Your task to perform on an android device: uninstall "Google Pay: Save, Pay, Manage" Image 0: 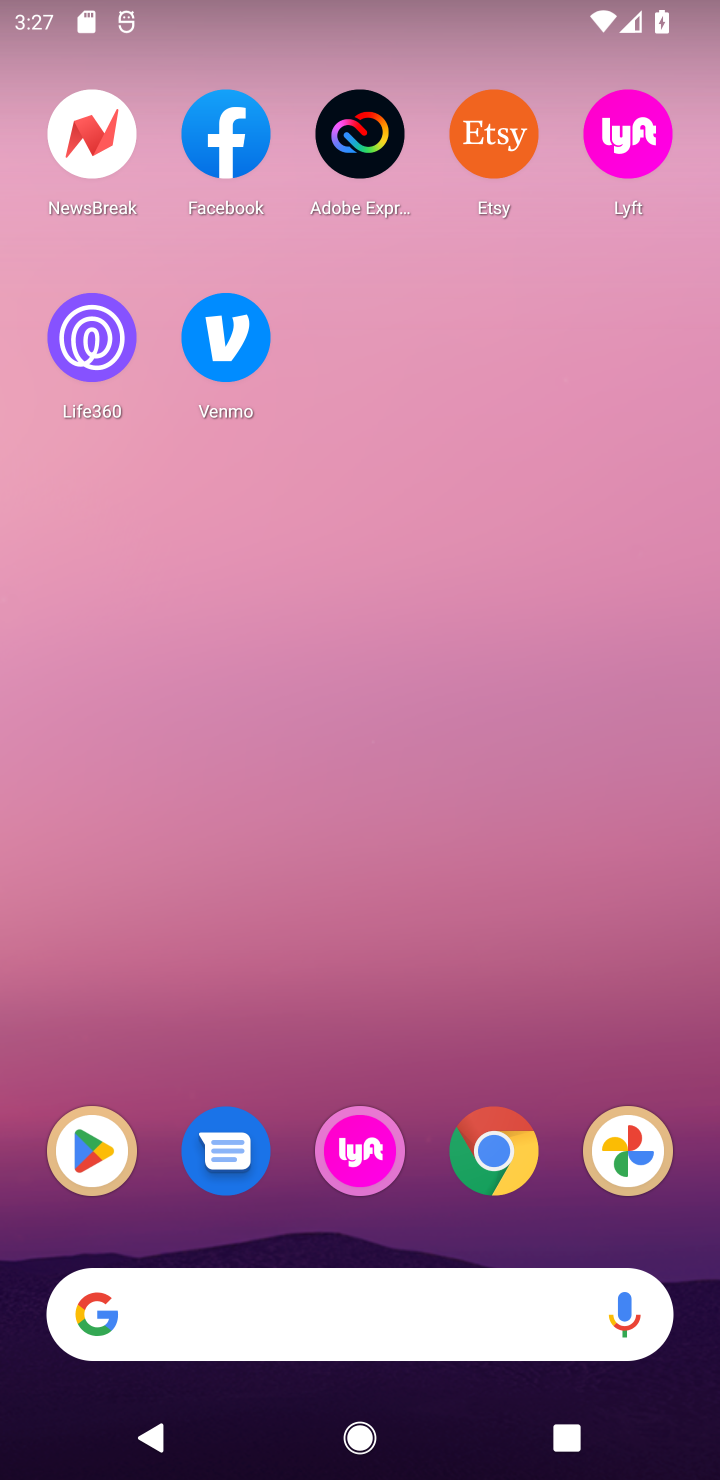
Step 0: drag from (405, 1290) to (446, 67)
Your task to perform on an android device: uninstall "Google Pay: Save, Pay, Manage" Image 1: 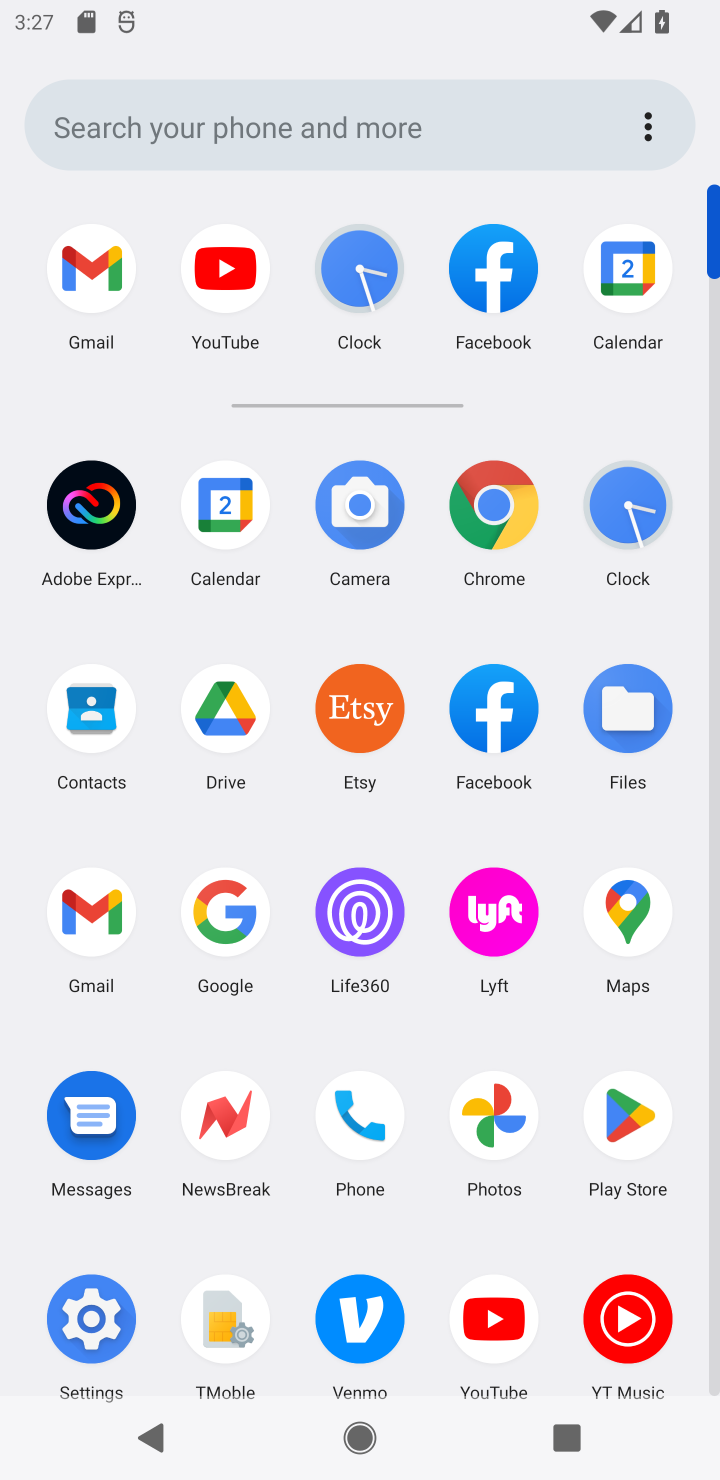
Step 1: click (639, 1113)
Your task to perform on an android device: uninstall "Google Pay: Save, Pay, Manage" Image 2: 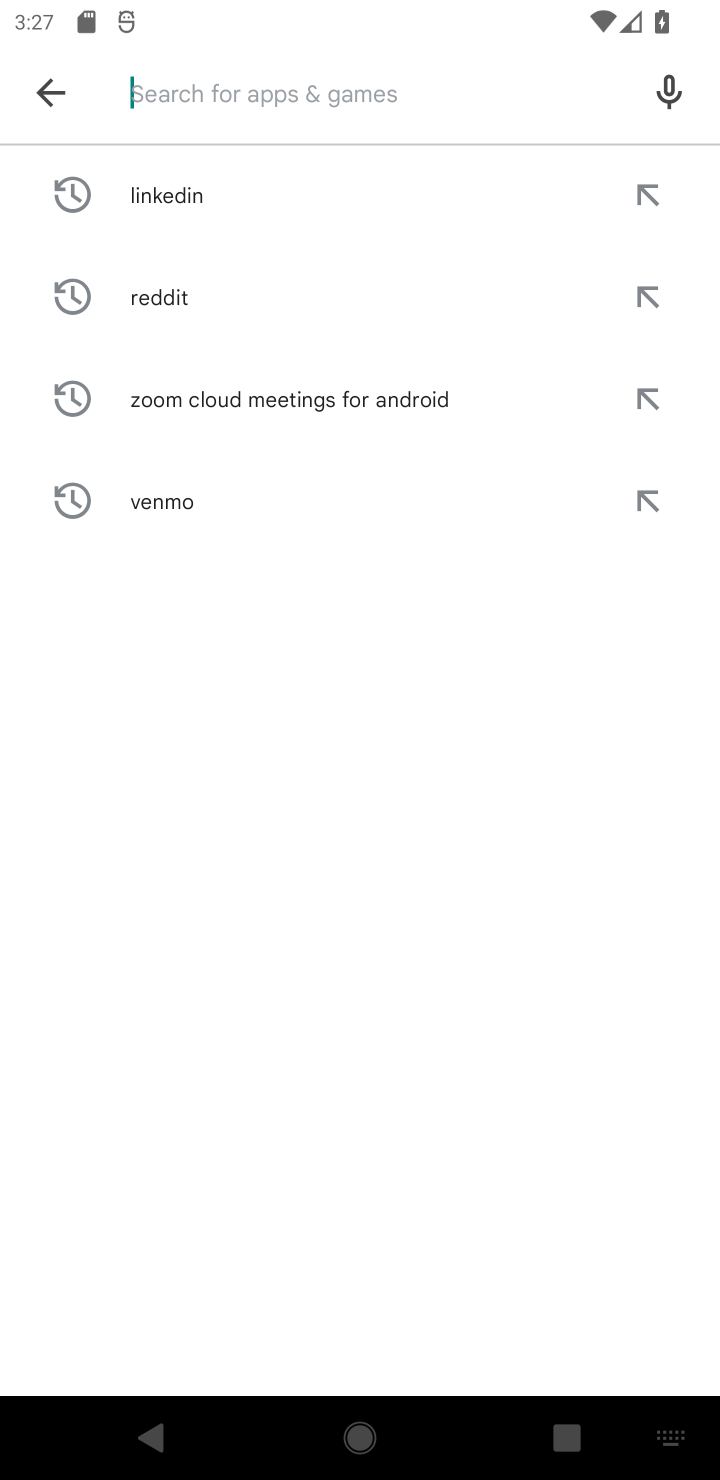
Step 2: type "Google Pay: Save, Pay, Manage"
Your task to perform on an android device: uninstall "Google Pay: Save, Pay, Manage" Image 3: 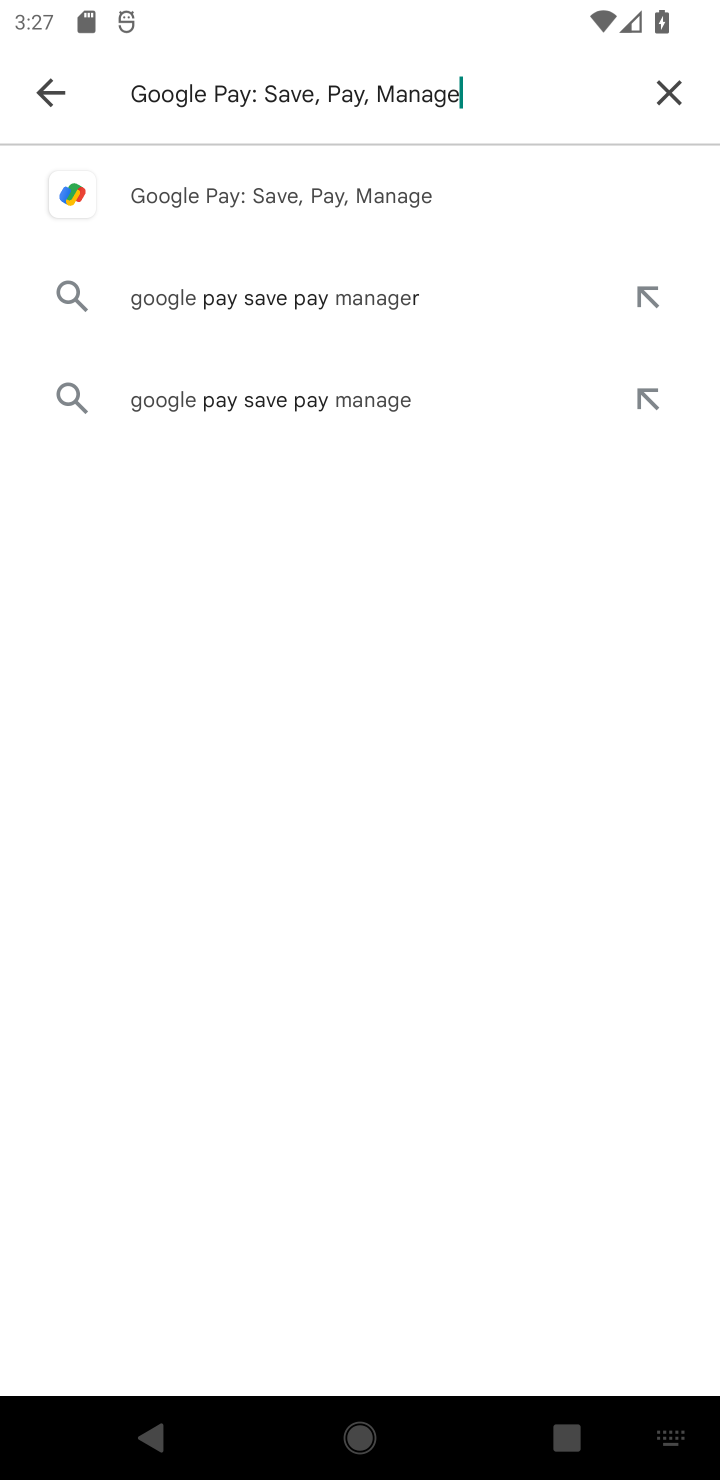
Step 3: click (356, 195)
Your task to perform on an android device: uninstall "Google Pay: Save, Pay, Manage" Image 4: 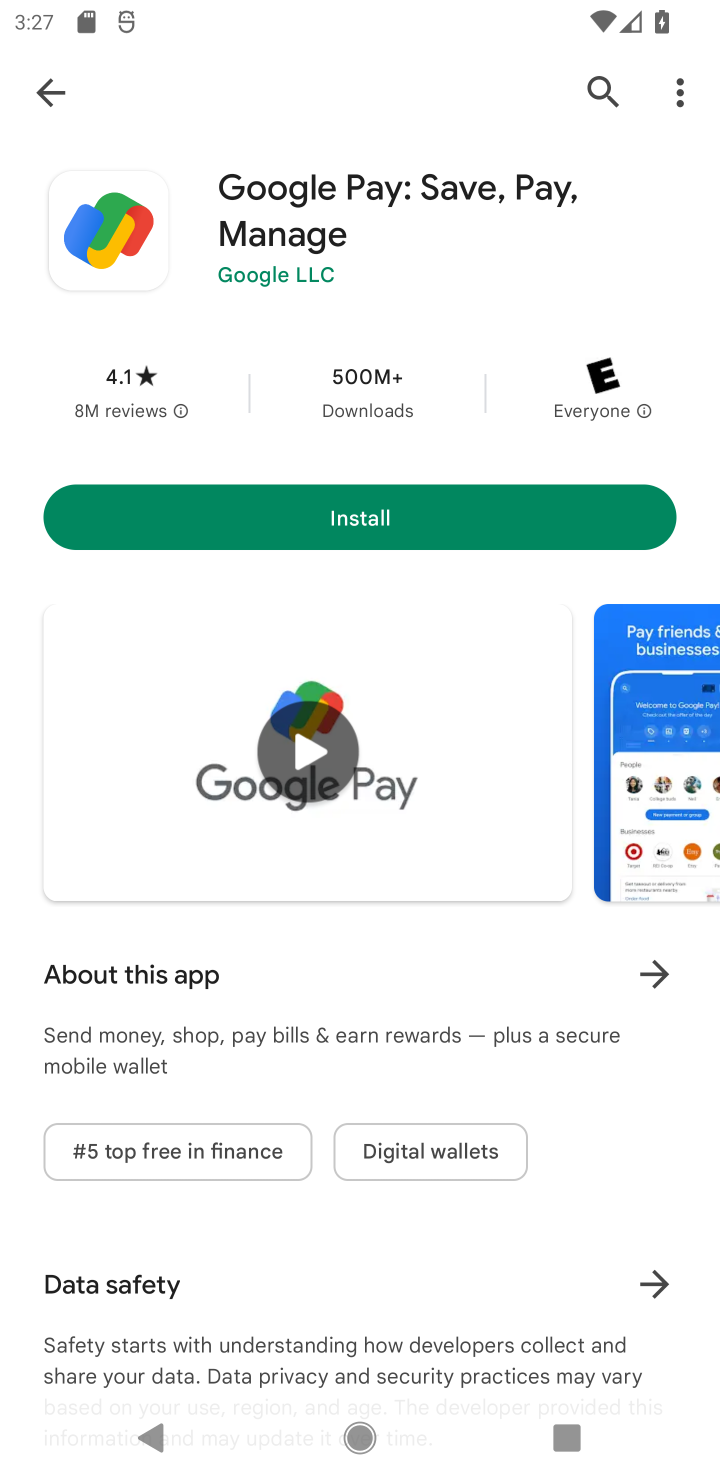
Step 4: task complete